Your task to perform on an android device: open a bookmark in the chrome app Image 0: 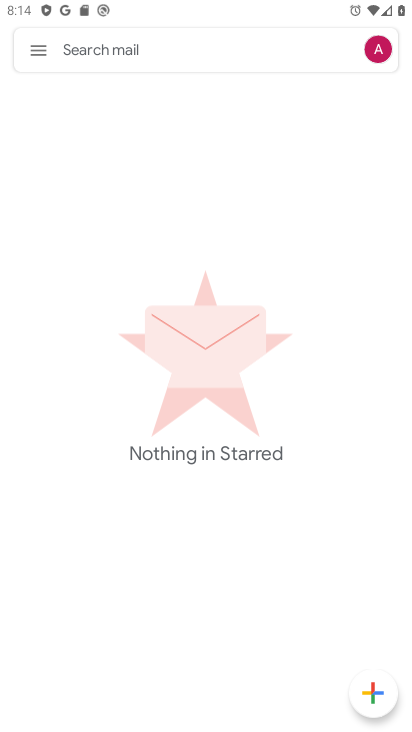
Step 0: press home button
Your task to perform on an android device: open a bookmark in the chrome app Image 1: 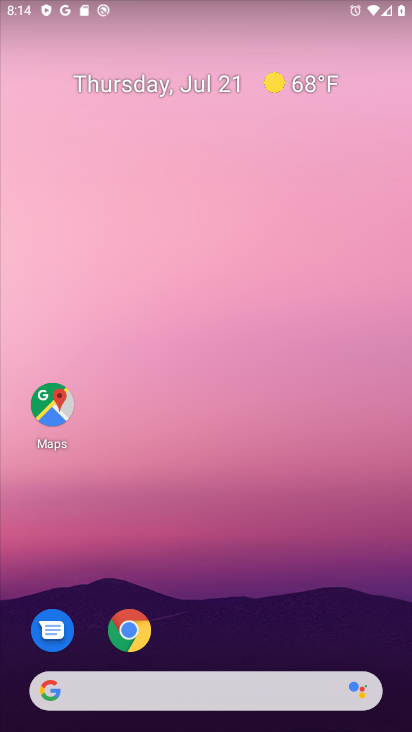
Step 1: drag from (284, 563) to (193, 176)
Your task to perform on an android device: open a bookmark in the chrome app Image 2: 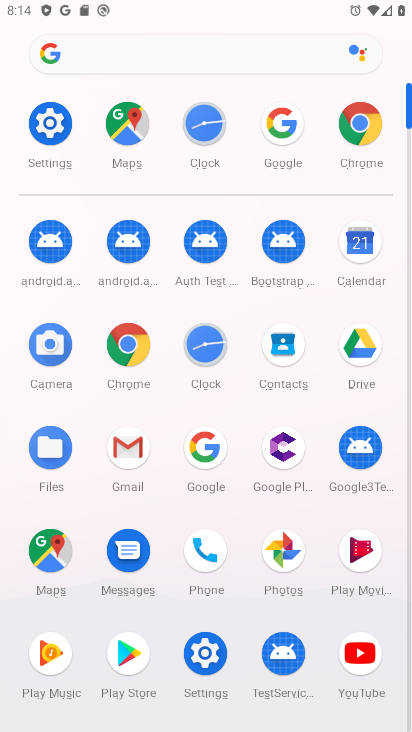
Step 2: click (340, 140)
Your task to perform on an android device: open a bookmark in the chrome app Image 3: 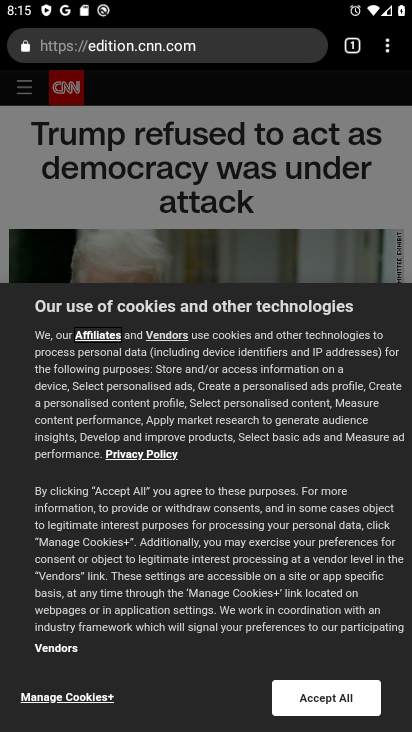
Step 3: drag from (382, 54) to (228, 169)
Your task to perform on an android device: open a bookmark in the chrome app Image 4: 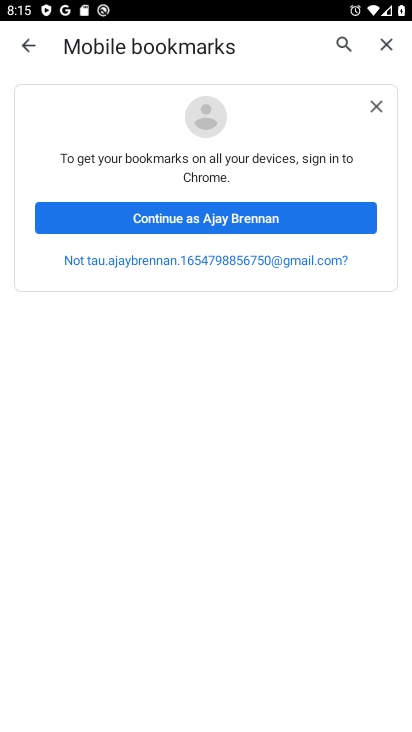
Step 4: click (250, 220)
Your task to perform on an android device: open a bookmark in the chrome app Image 5: 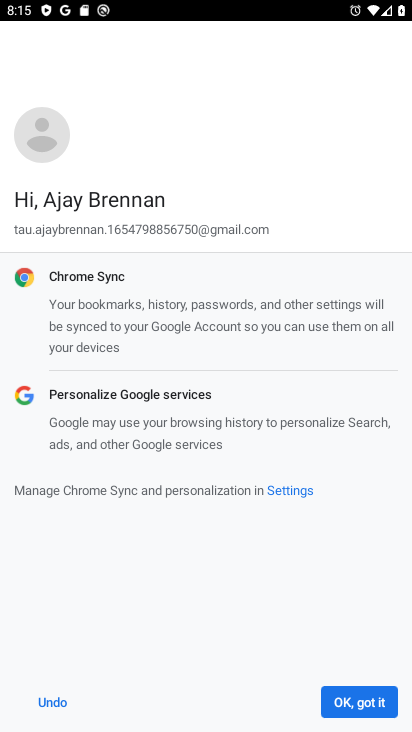
Step 5: click (327, 707)
Your task to perform on an android device: open a bookmark in the chrome app Image 6: 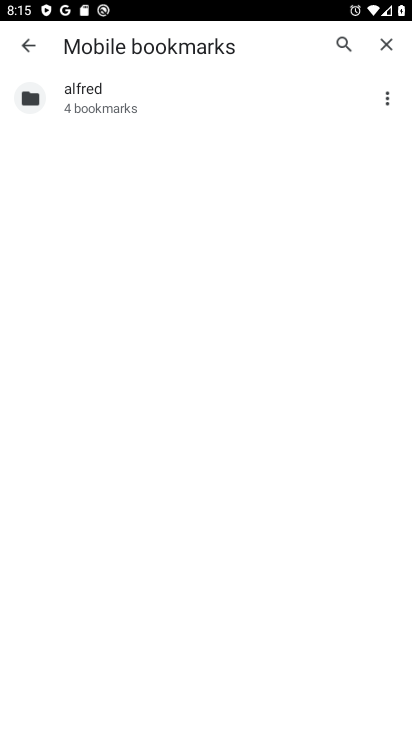
Step 6: task complete